Your task to perform on an android device: Search for "razer deathadder" on newegg.com, select the first entry, add it to the cart, then select checkout. Image 0: 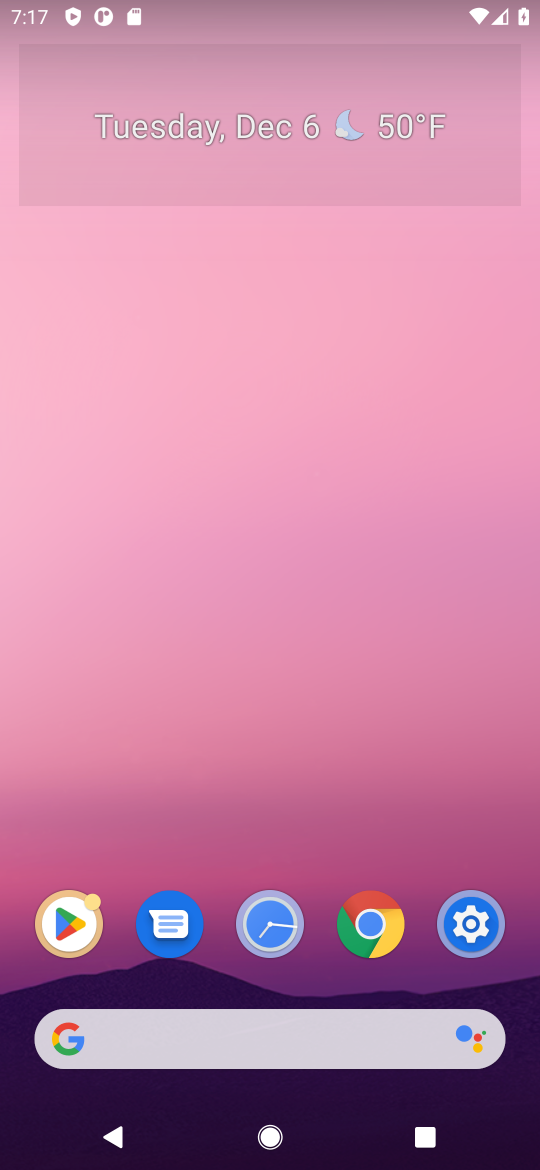
Step 0: click (310, 1031)
Your task to perform on an android device: Search for "razer deathadder" on newegg.com, select the first entry, add it to the cart, then select checkout. Image 1: 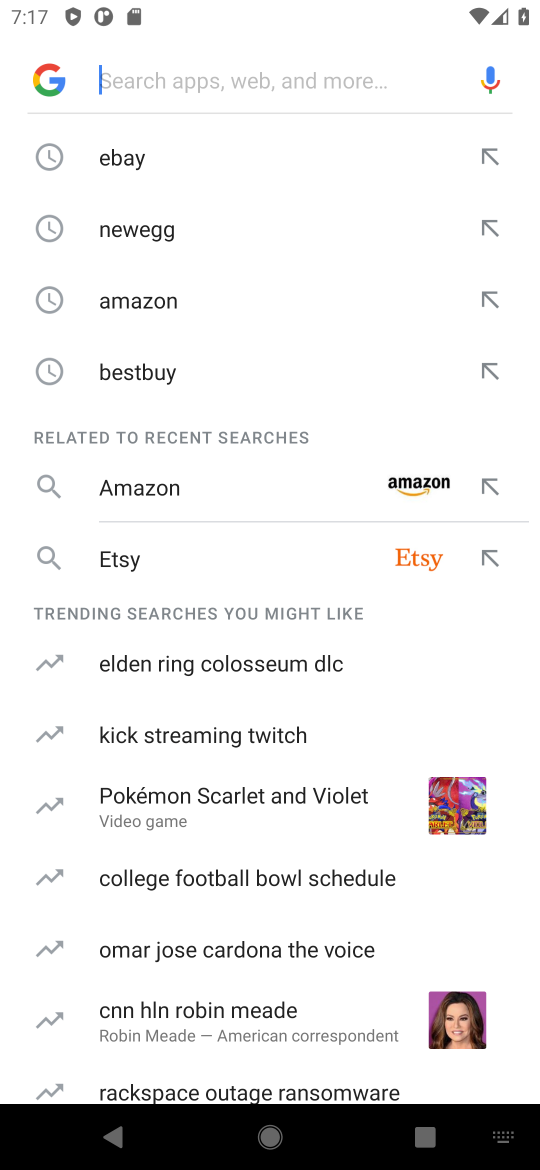
Step 1: type "newegg"
Your task to perform on an android device: Search for "razer deathadder" on newegg.com, select the first entry, add it to the cart, then select checkout. Image 2: 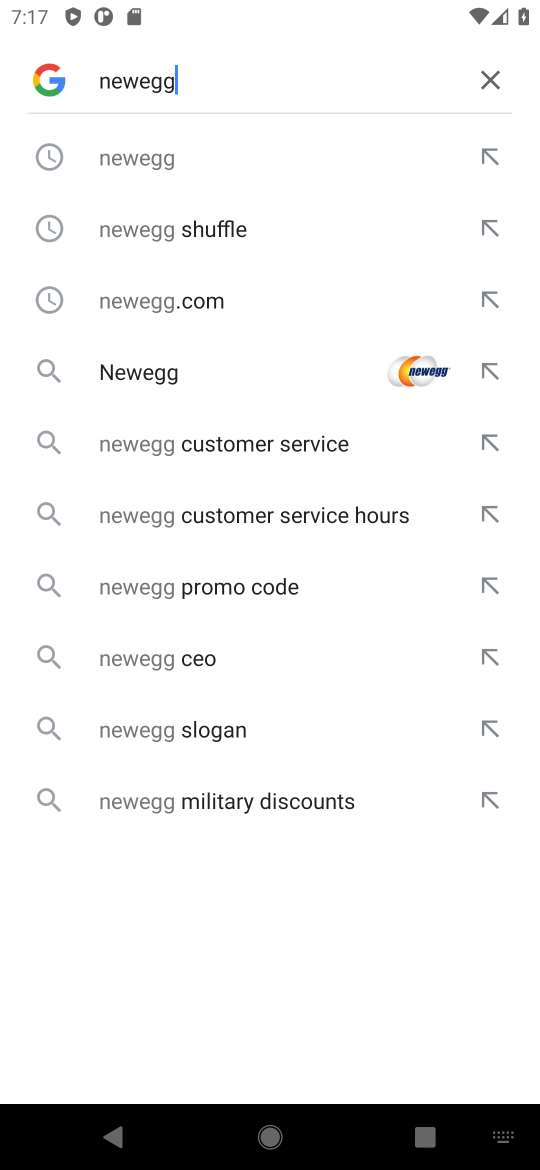
Step 2: click (155, 169)
Your task to perform on an android device: Search for "razer deathadder" on newegg.com, select the first entry, add it to the cart, then select checkout. Image 3: 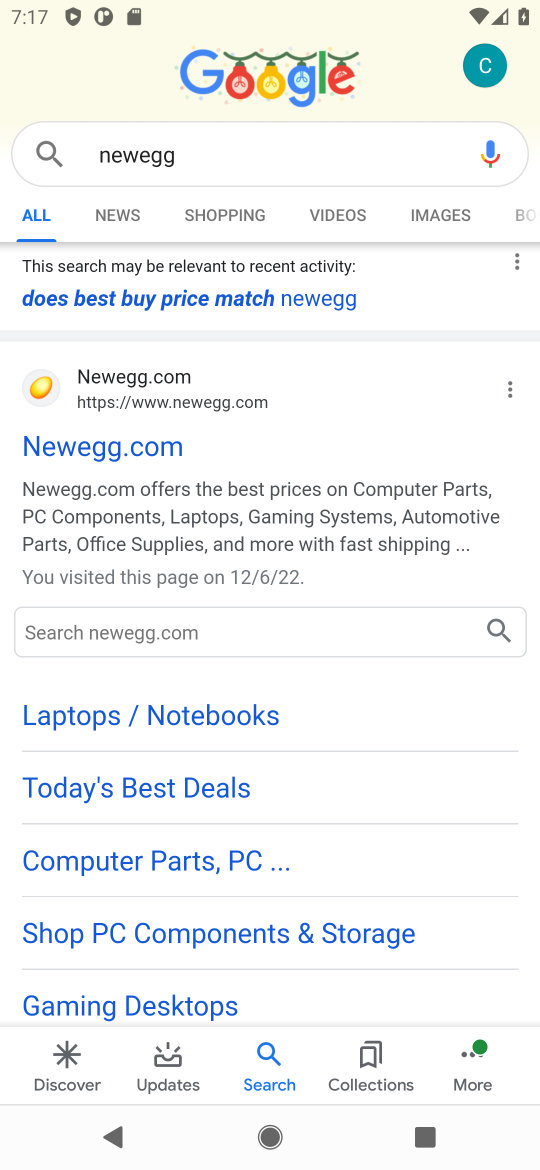
Step 3: click (164, 474)
Your task to perform on an android device: Search for "razer deathadder" on newegg.com, select the first entry, add it to the cart, then select checkout. Image 4: 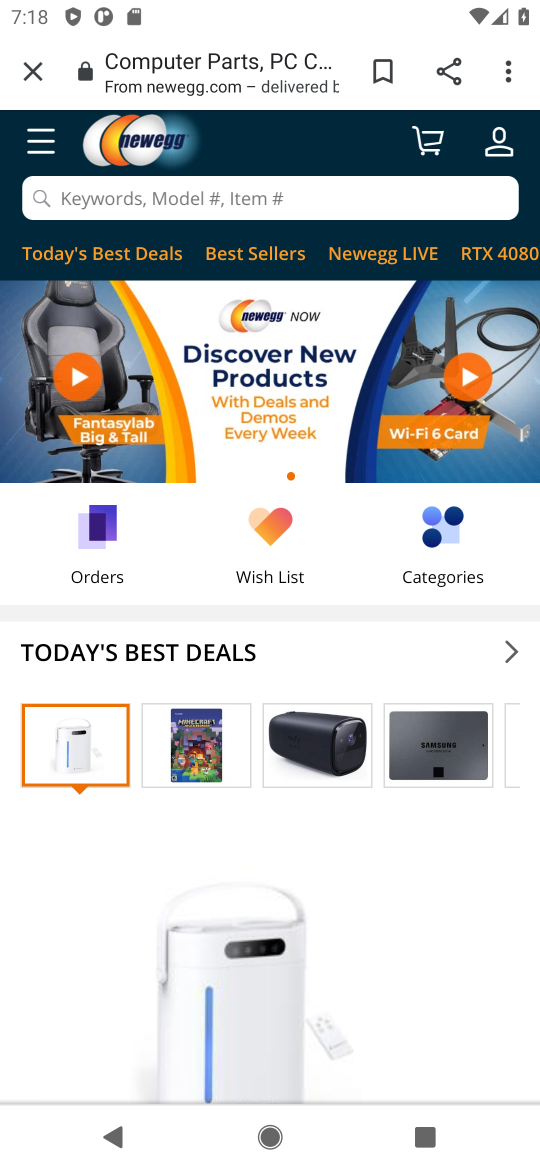
Step 4: task complete